Your task to perform on an android device: Open calendar and show me the third week of next month Image 0: 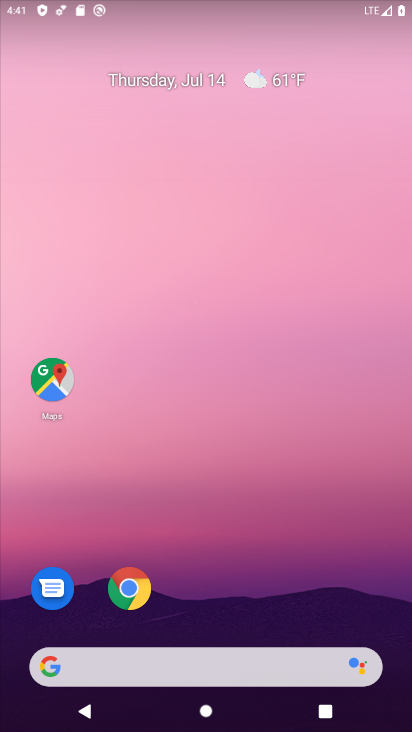
Step 0: drag from (296, 626) to (271, 153)
Your task to perform on an android device: Open calendar and show me the third week of next month Image 1: 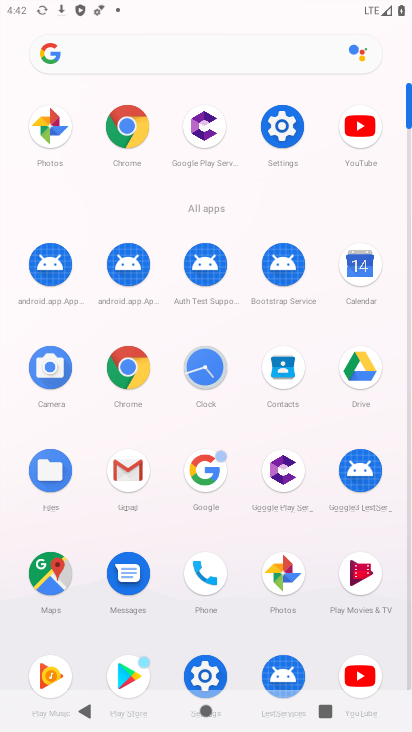
Step 1: click (354, 265)
Your task to perform on an android device: Open calendar and show me the third week of next month Image 2: 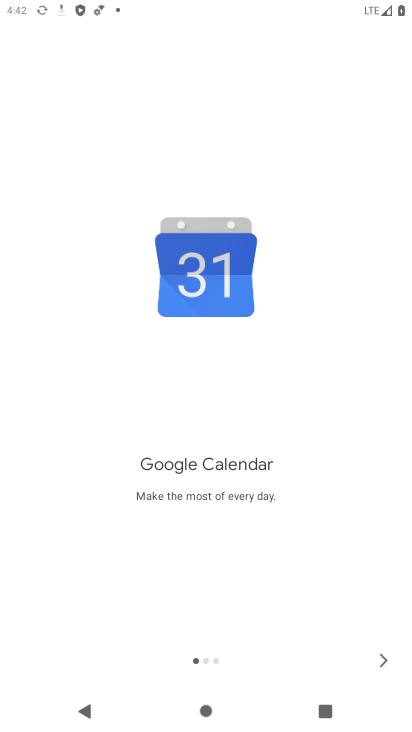
Step 2: click (386, 663)
Your task to perform on an android device: Open calendar and show me the third week of next month Image 3: 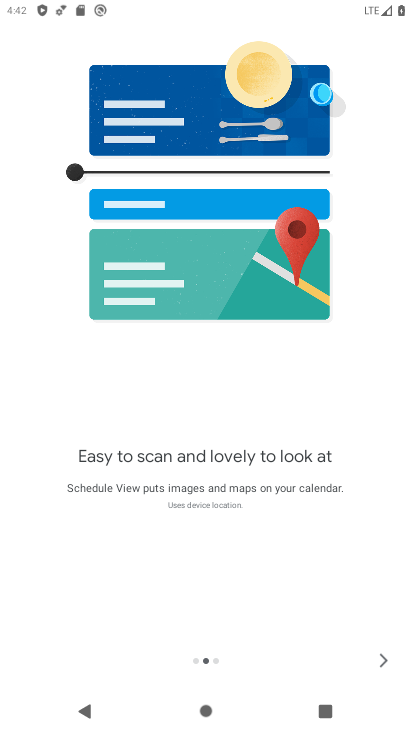
Step 3: click (386, 663)
Your task to perform on an android device: Open calendar and show me the third week of next month Image 4: 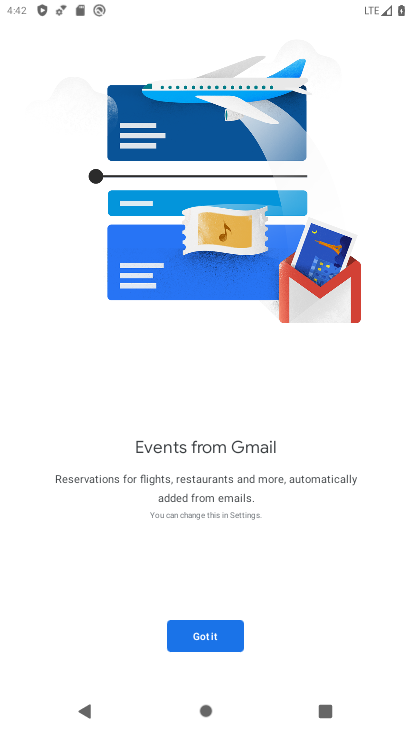
Step 4: click (189, 643)
Your task to perform on an android device: Open calendar and show me the third week of next month Image 5: 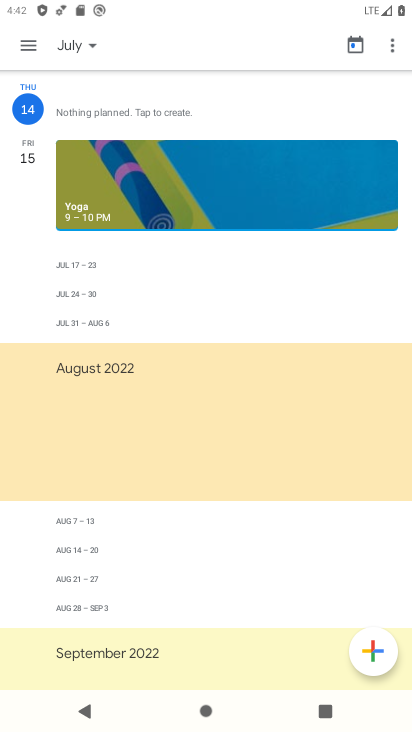
Step 5: click (32, 42)
Your task to perform on an android device: Open calendar and show me the third week of next month Image 6: 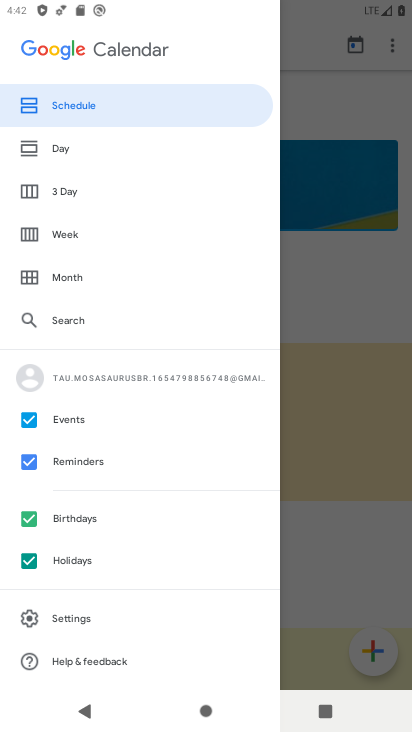
Step 6: click (77, 240)
Your task to perform on an android device: Open calendar and show me the third week of next month Image 7: 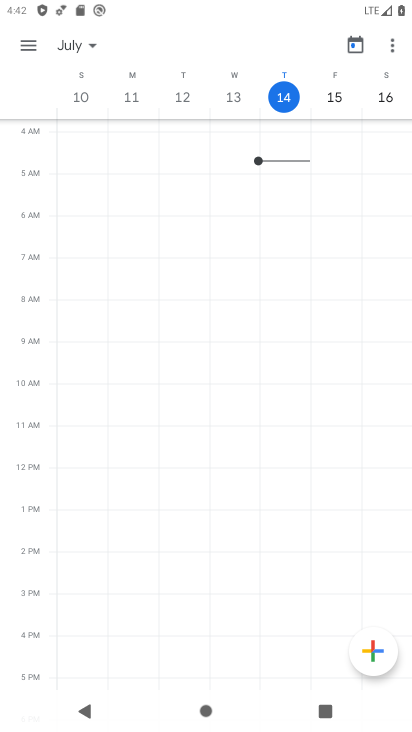
Step 7: click (80, 39)
Your task to perform on an android device: Open calendar and show me the third week of next month Image 8: 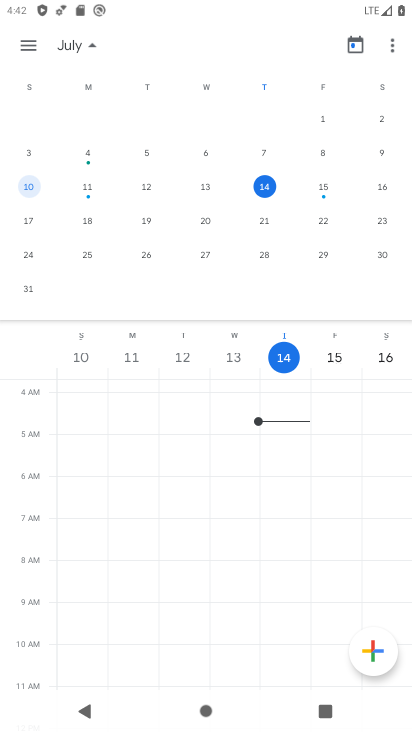
Step 8: drag from (390, 203) to (2, 213)
Your task to perform on an android device: Open calendar and show me the third week of next month Image 9: 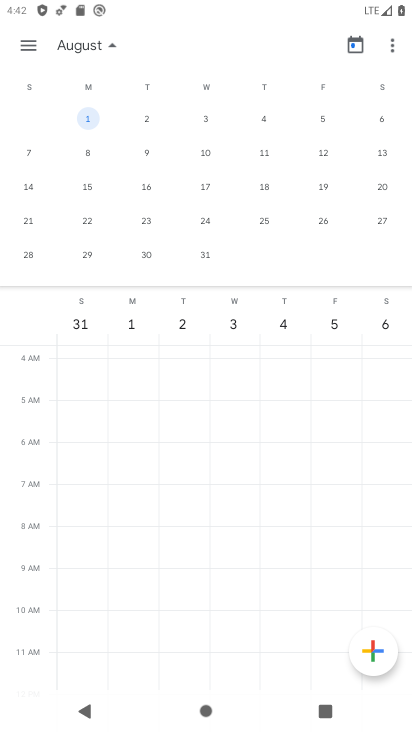
Step 9: click (218, 185)
Your task to perform on an android device: Open calendar and show me the third week of next month Image 10: 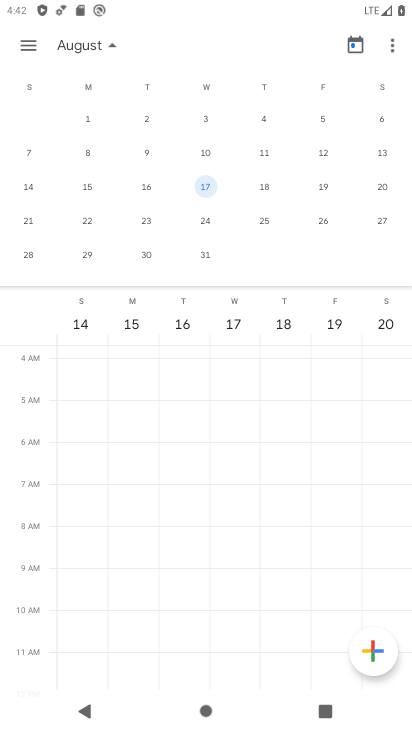
Step 10: task complete